Your task to perform on an android device: Go to ESPN.com Image 0: 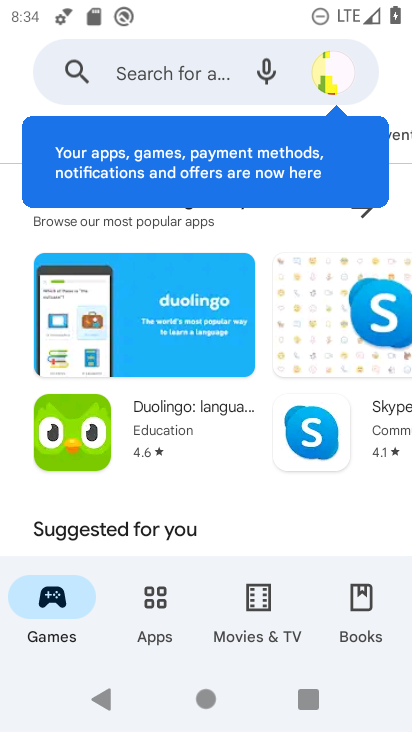
Step 0: press home button
Your task to perform on an android device: Go to ESPN.com Image 1: 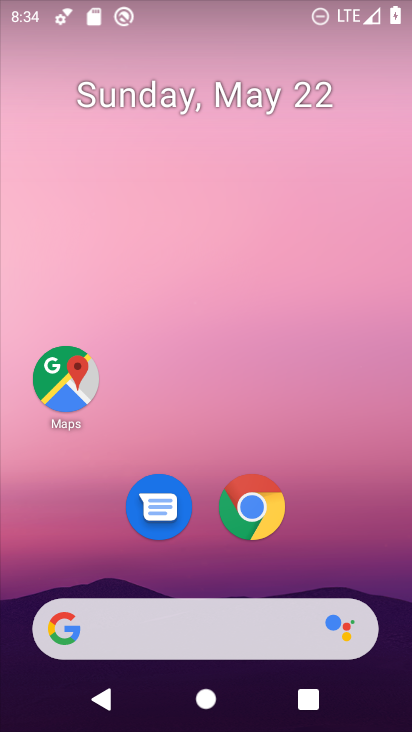
Step 1: click (214, 633)
Your task to perform on an android device: Go to ESPN.com Image 2: 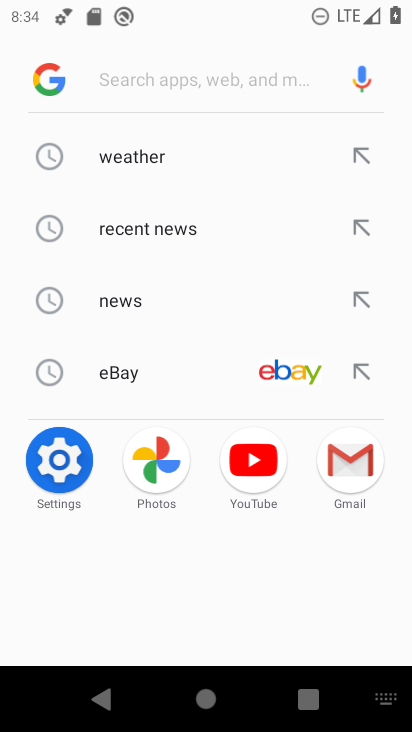
Step 2: type "espn.com"
Your task to perform on an android device: Go to ESPN.com Image 3: 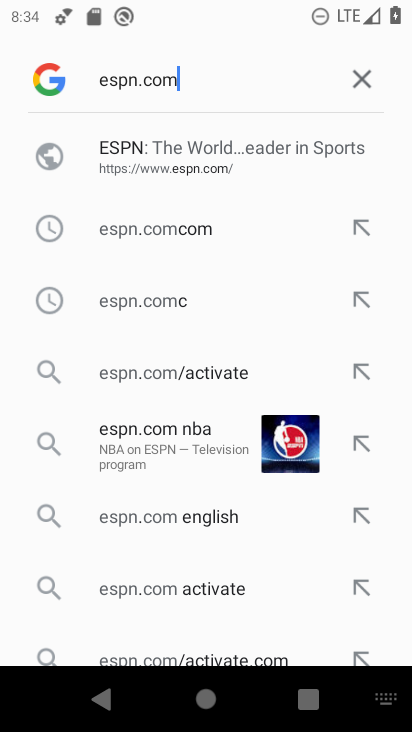
Step 3: click (171, 173)
Your task to perform on an android device: Go to ESPN.com Image 4: 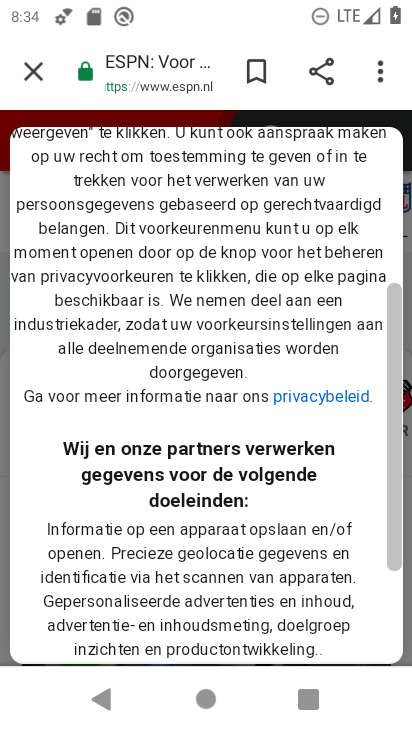
Step 4: task complete